Your task to perform on an android device: turn on priority inbox in the gmail app Image 0: 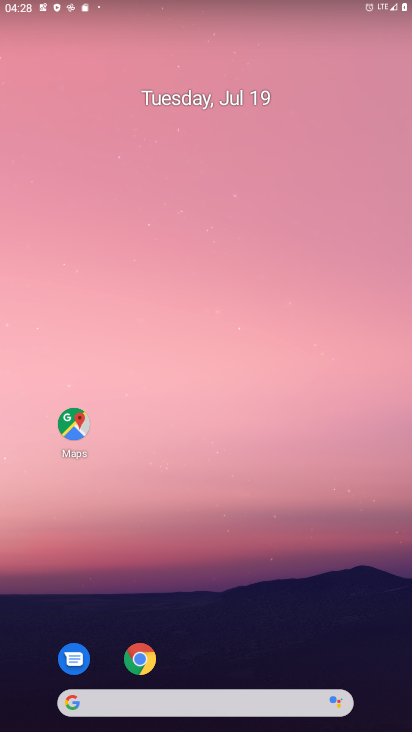
Step 0: press home button
Your task to perform on an android device: turn on priority inbox in the gmail app Image 1: 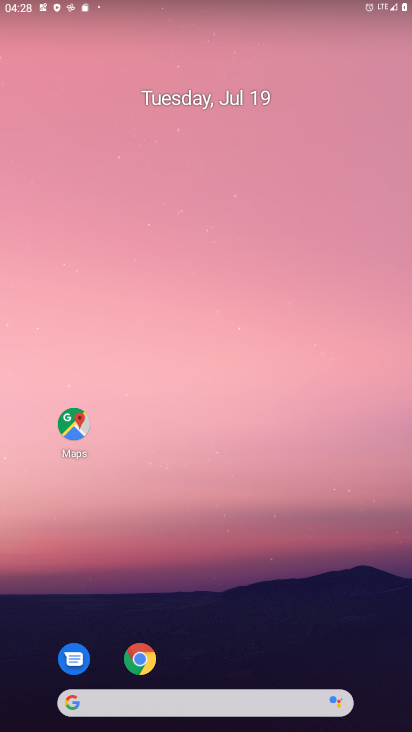
Step 1: drag from (221, 660) to (200, 156)
Your task to perform on an android device: turn on priority inbox in the gmail app Image 2: 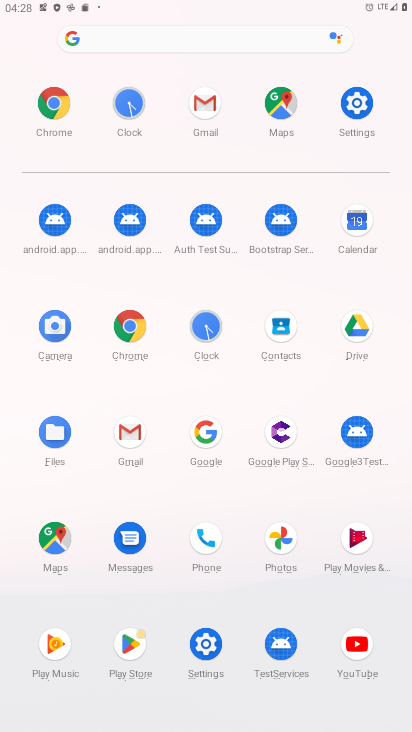
Step 2: click (144, 437)
Your task to perform on an android device: turn on priority inbox in the gmail app Image 3: 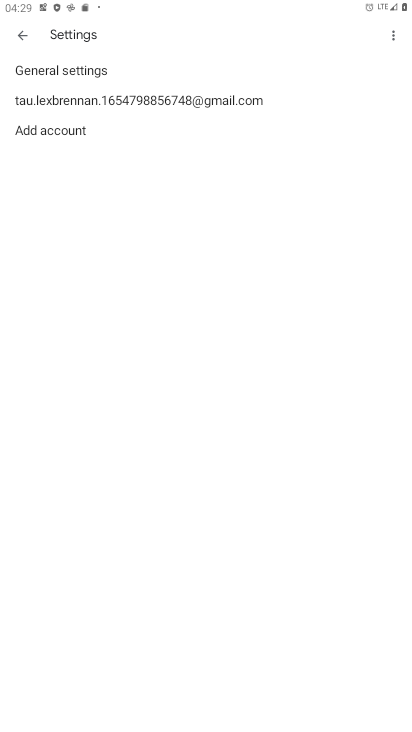
Step 3: click (148, 100)
Your task to perform on an android device: turn on priority inbox in the gmail app Image 4: 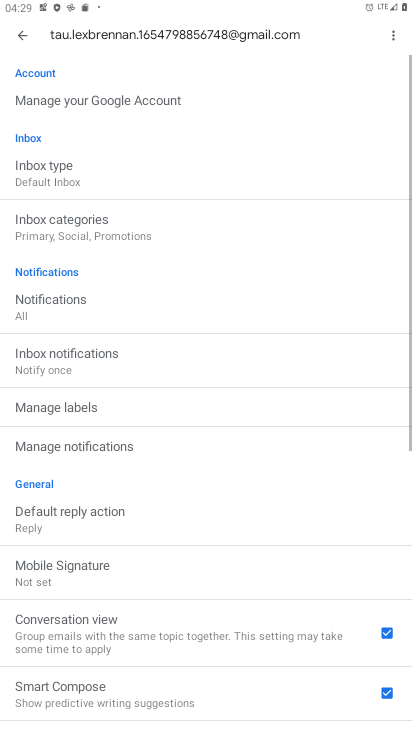
Step 4: click (108, 164)
Your task to perform on an android device: turn on priority inbox in the gmail app Image 5: 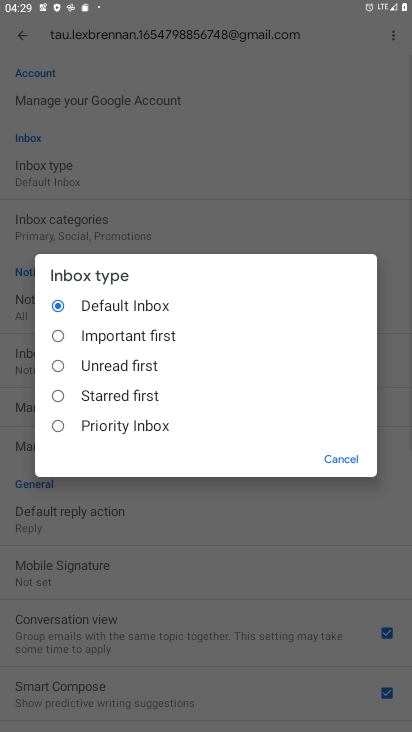
Step 5: click (54, 432)
Your task to perform on an android device: turn on priority inbox in the gmail app Image 6: 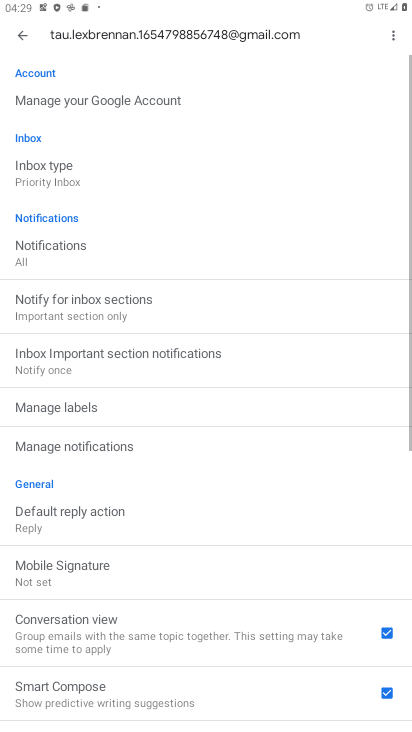
Step 6: task complete